Your task to perform on an android device: Go to battery settings Image 0: 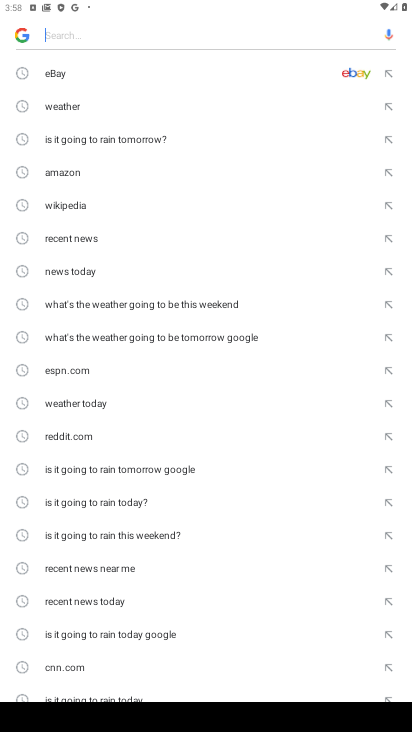
Step 0: press back button
Your task to perform on an android device: Go to battery settings Image 1: 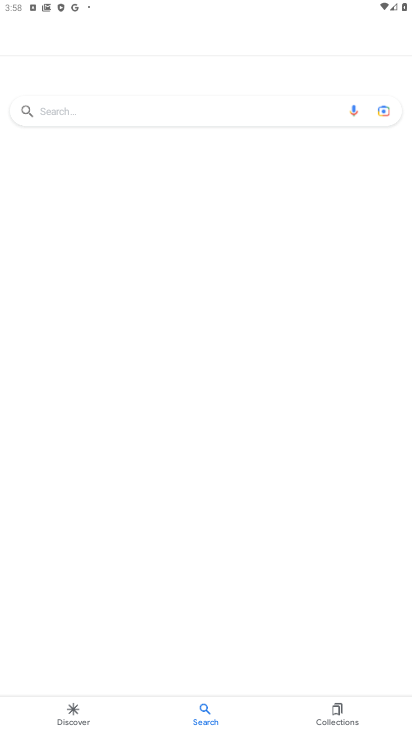
Step 1: press home button
Your task to perform on an android device: Go to battery settings Image 2: 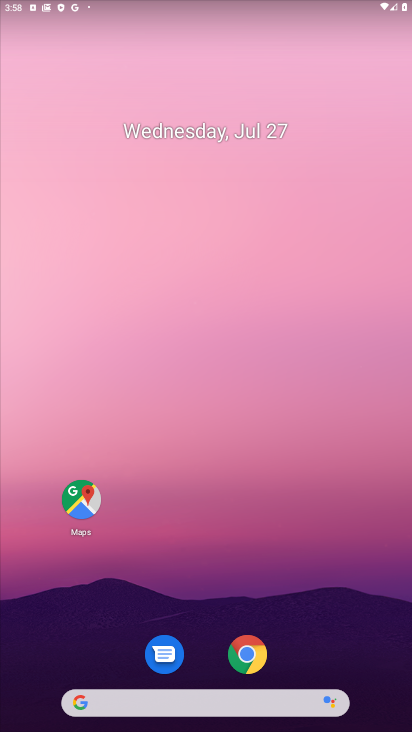
Step 2: drag from (191, 589) to (193, 187)
Your task to perform on an android device: Go to battery settings Image 3: 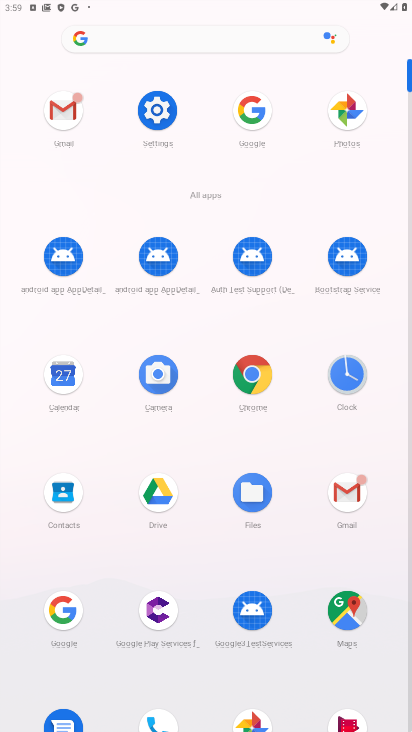
Step 3: click (161, 112)
Your task to perform on an android device: Go to battery settings Image 4: 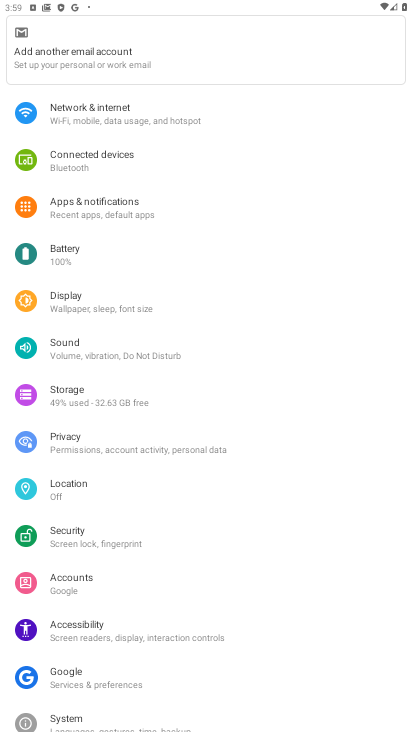
Step 4: click (63, 255)
Your task to perform on an android device: Go to battery settings Image 5: 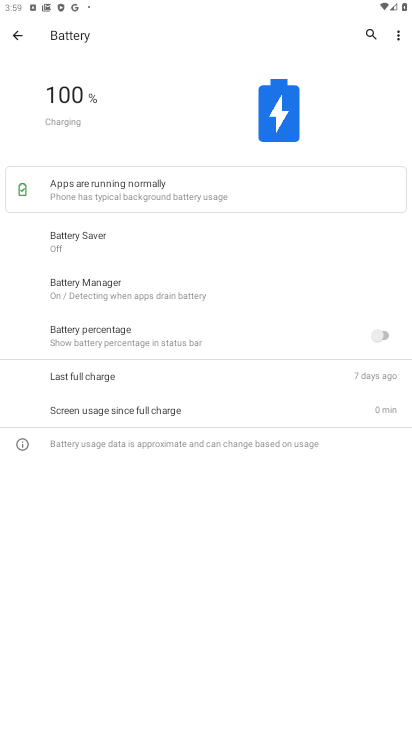
Step 5: task complete